Your task to perform on an android device: open app "YouTube Kids" Image 0: 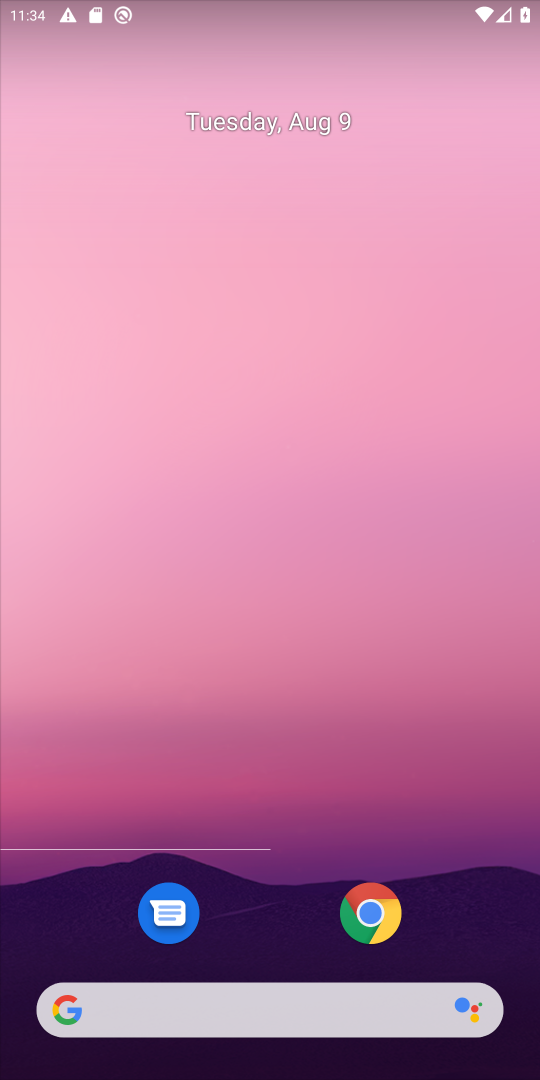
Step 0: task impossible